Your task to perform on an android device: toggle airplane mode Image 0: 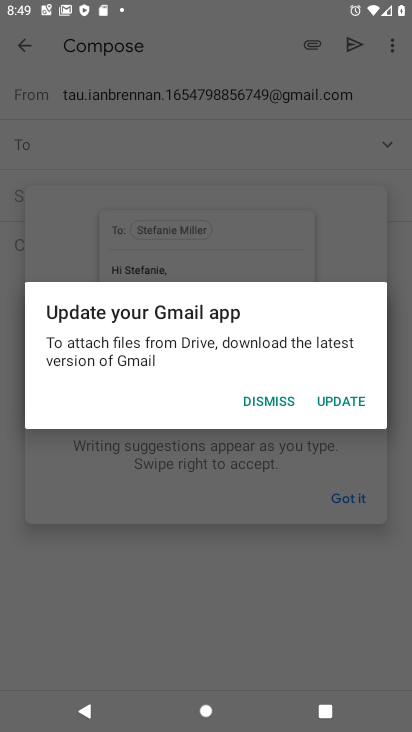
Step 0: press home button
Your task to perform on an android device: toggle airplane mode Image 1: 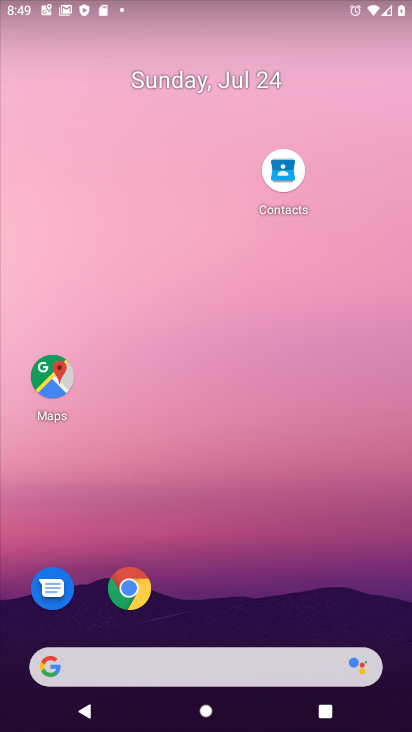
Step 1: task complete